Your task to perform on an android device: change timer sound Image 0: 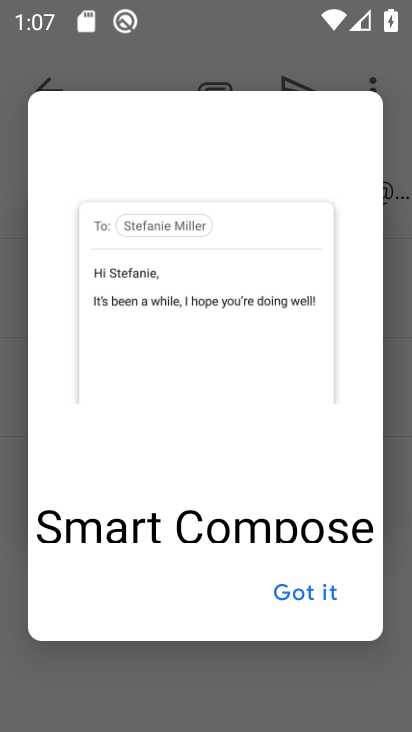
Step 0: press home button
Your task to perform on an android device: change timer sound Image 1: 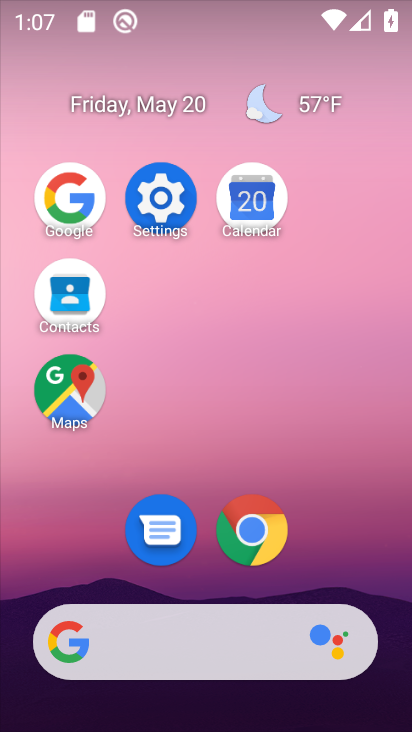
Step 1: drag from (360, 526) to (348, 88)
Your task to perform on an android device: change timer sound Image 2: 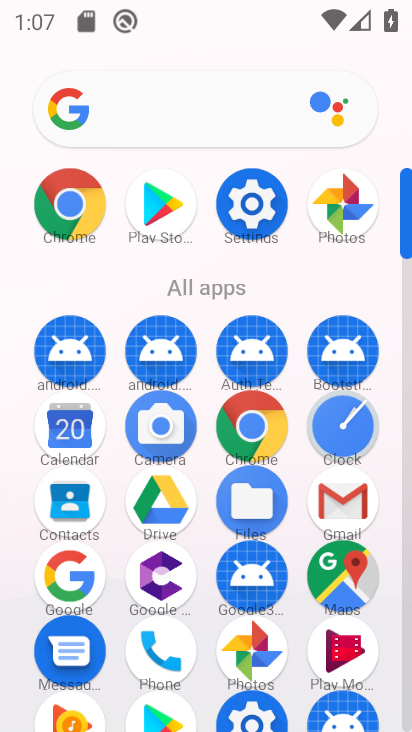
Step 2: drag from (330, 427) to (214, 309)
Your task to perform on an android device: change timer sound Image 3: 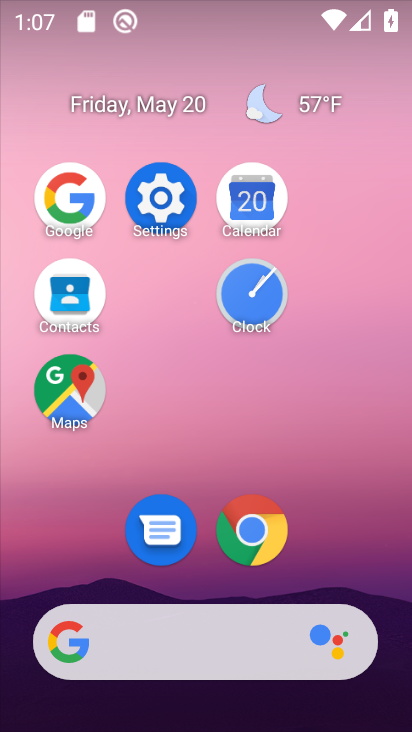
Step 3: click (244, 281)
Your task to perform on an android device: change timer sound Image 4: 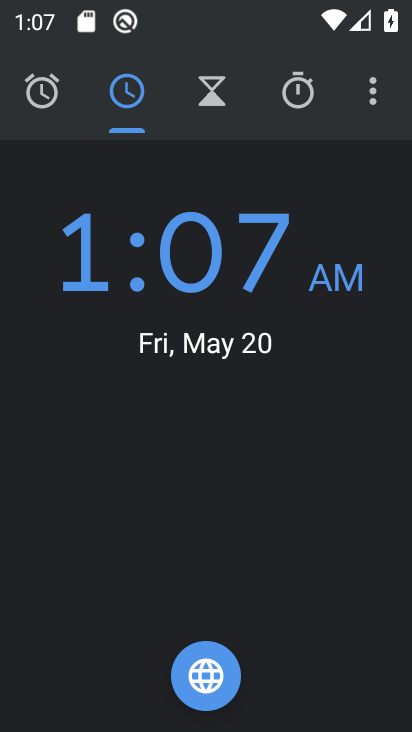
Step 4: click (380, 85)
Your task to perform on an android device: change timer sound Image 5: 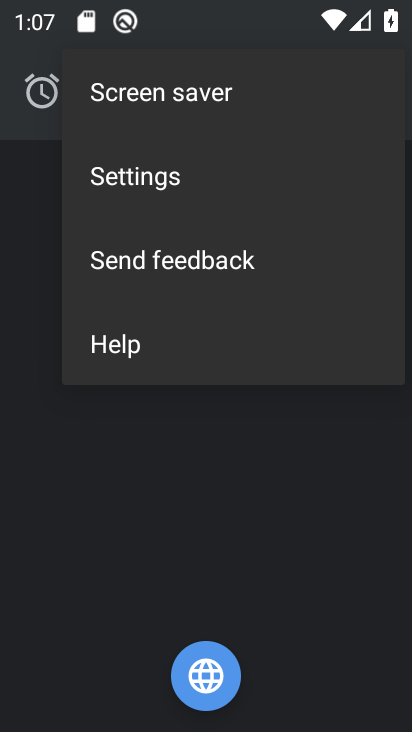
Step 5: click (194, 180)
Your task to perform on an android device: change timer sound Image 6: 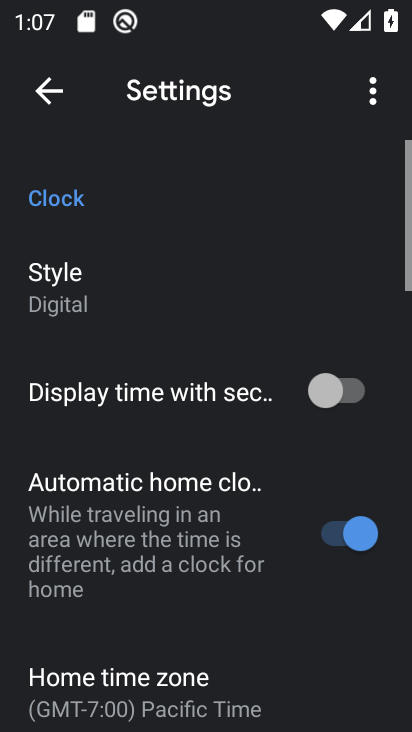
Step 6: drag from (157, 469) to (205, 110)
Your task to perform on an android device: change timer sound Image 7: 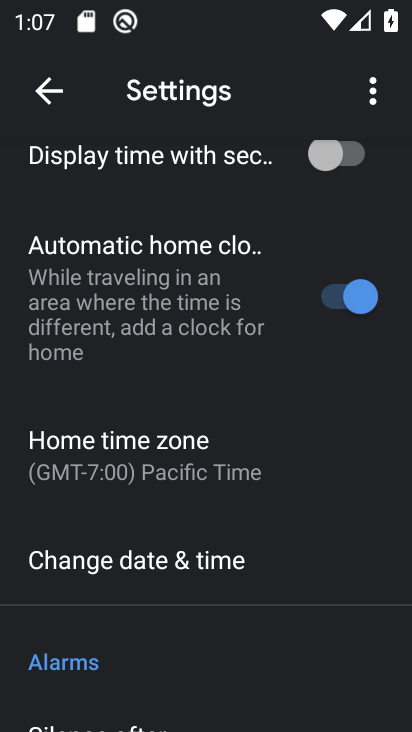
Step 7: drag from (227, 593) to (232, 175)
Your task to perform on an android device: change timer sound Image 8: 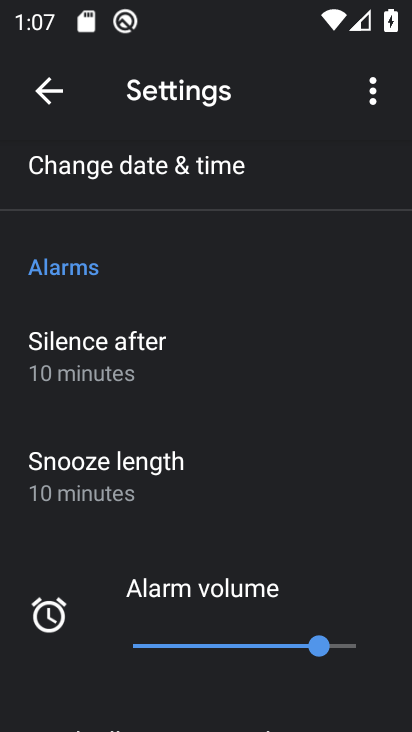
Step 8: drag from (231, 420) to (253, 118)
Your task to perform on an android device: change timer sound Image 9: 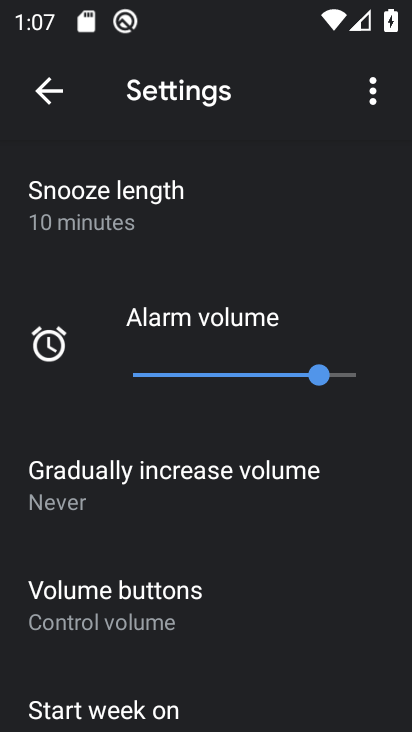
Step 9: drag from (198, 534) to (231, 133)
Your task to perform on an android device: change timer sound Image 10: 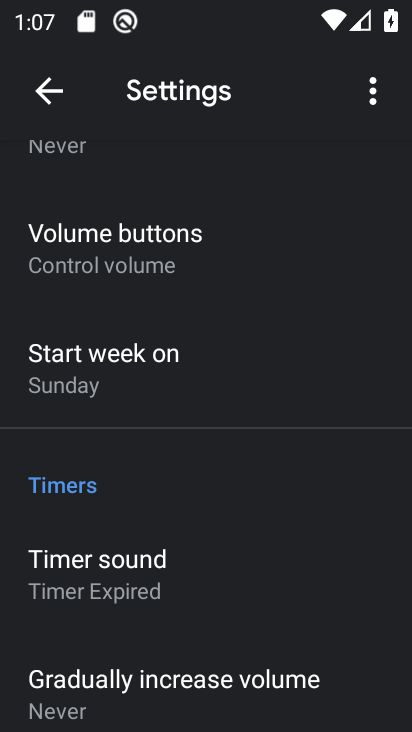
Step 10: click (164, 581)
Your task to perform on an android device: change timer sound Image 11: 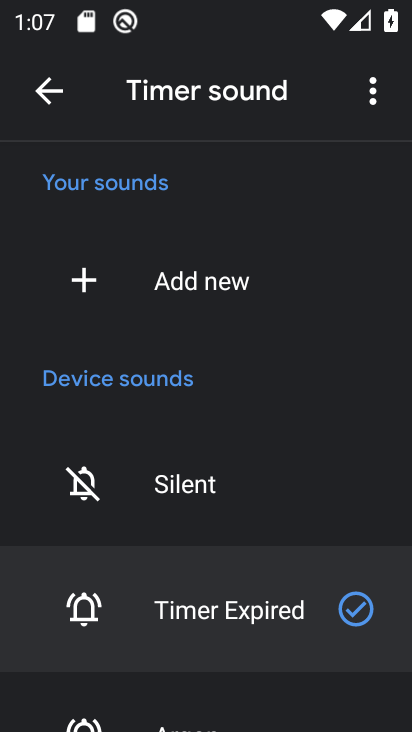
Step 11: click (163, 718)
Your task to perform on an android device: change timer sound Image 12: 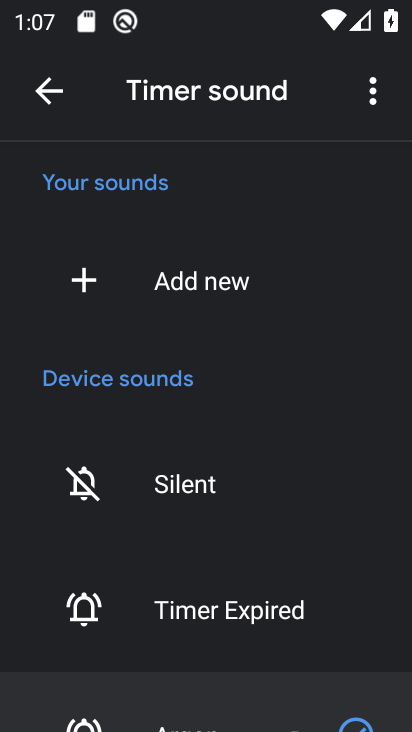
Step 12: task complete